Your task to perform on an android device: change alarm snooze length Image 0: 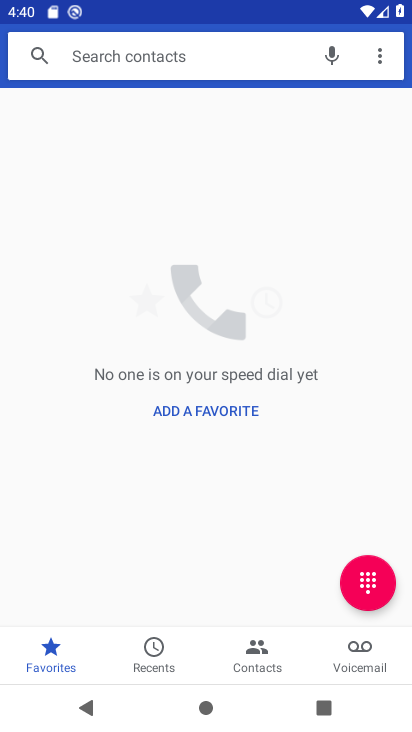
Step 0: press back button
Your task to perform on an android device: change alarm snooze length Image 1: 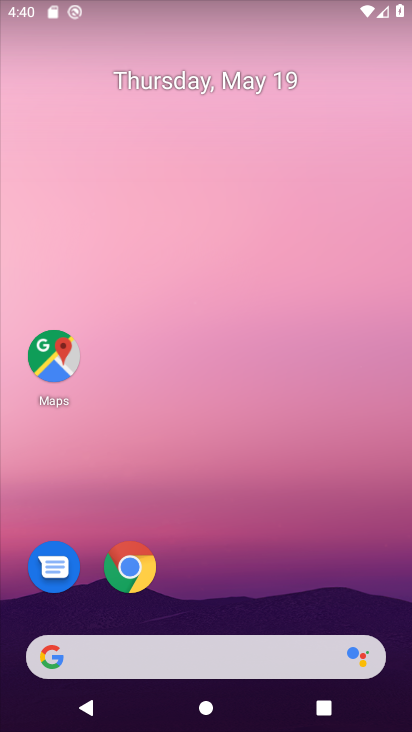
Step 1: drag from (259, 572) to (180, 62)
Your task to perform on an android device: change alarm snooze length Image 2: 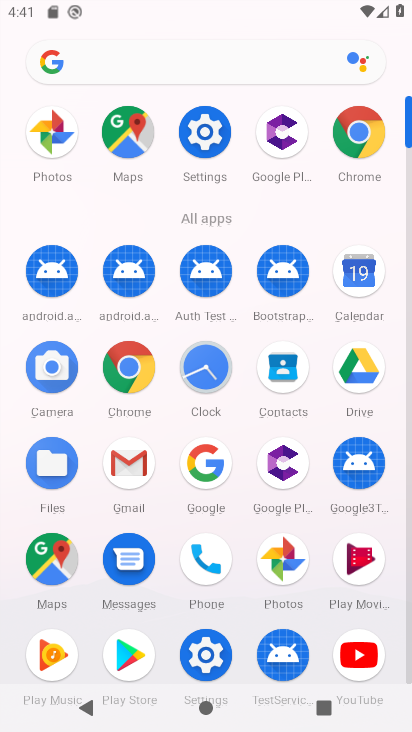
Step 2: click (206, 365)
Your task to perform on an android device: change alarm snooze length Image 3: 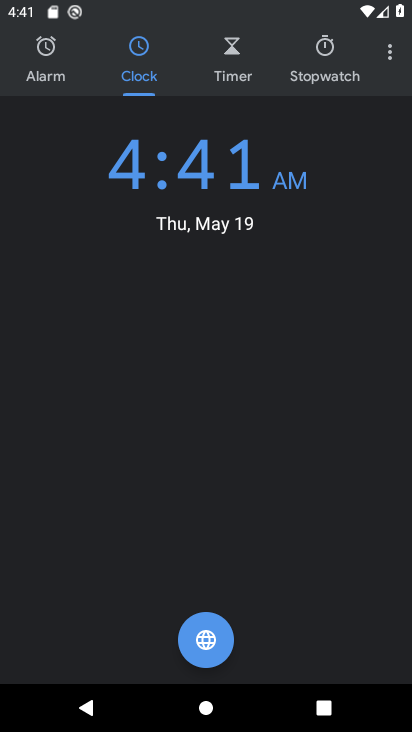
Step 3: click (391, 50)
Your task to perform on an android device: change alarm snooze length Image 4: 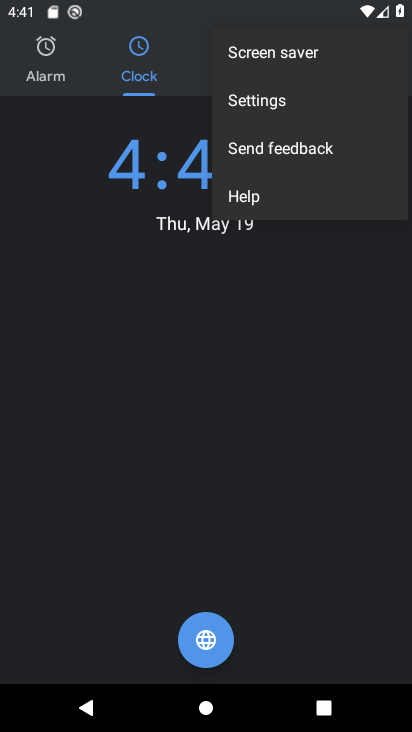
Step 4: click (270, 101)
Your task to perform on an android device: change alarm snooze length Image 5: 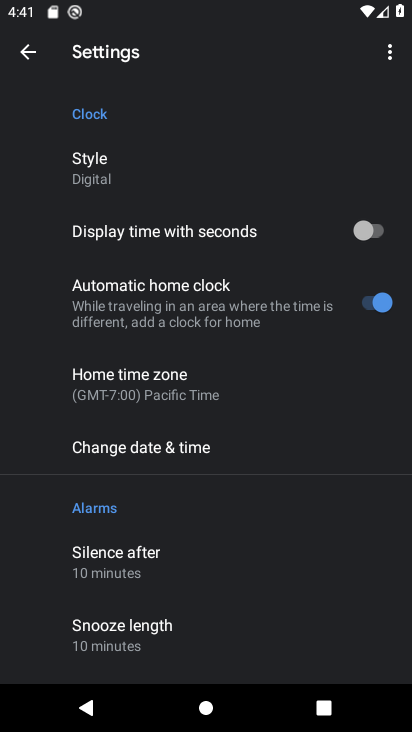
Step 5: drag from (209, 570) to (245, 440)
Your task to perform on an android device: change alarm snooze length Image 6: 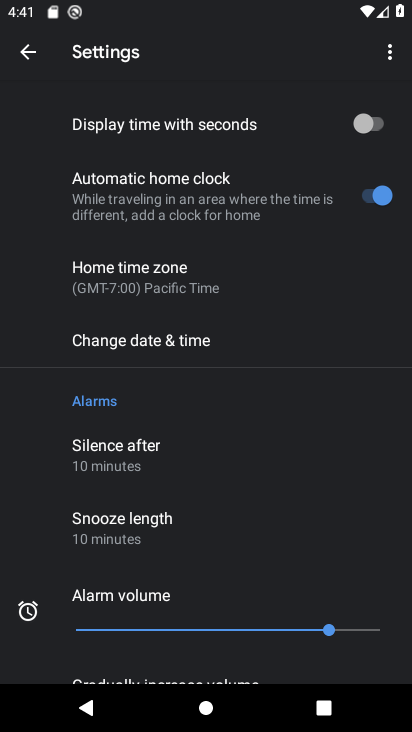
Step 6: click (131, 524)
Your task to perform on an android device: change alarm snooze length Image 7: 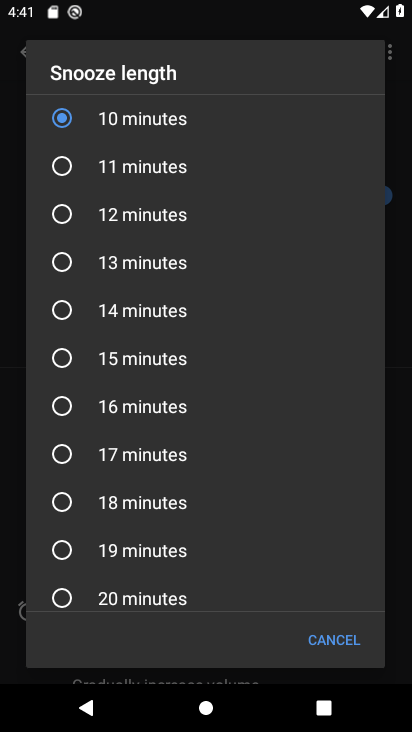
Step 7: click (63, 306)
Your task to perform on an android device: change alarm snooze length Image 8: 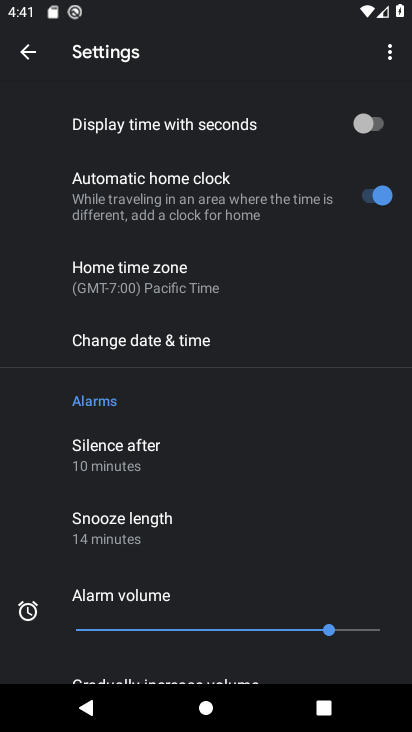
Step 8: task complete